Your task to perform on an android device: Open display settings Image 0: 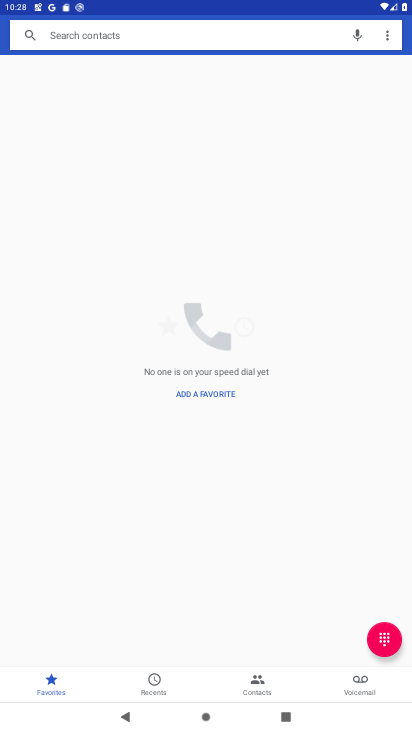
Step 0: press home button
Your task to perform on an android device: Open display settings Image 1: 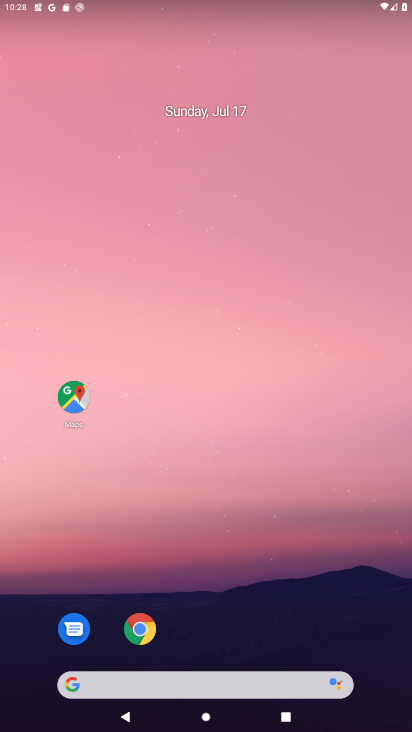
Step 1: drag from (205, 689) to (319, 371)
Your task to perform on an android device: Open display settings Image 2: 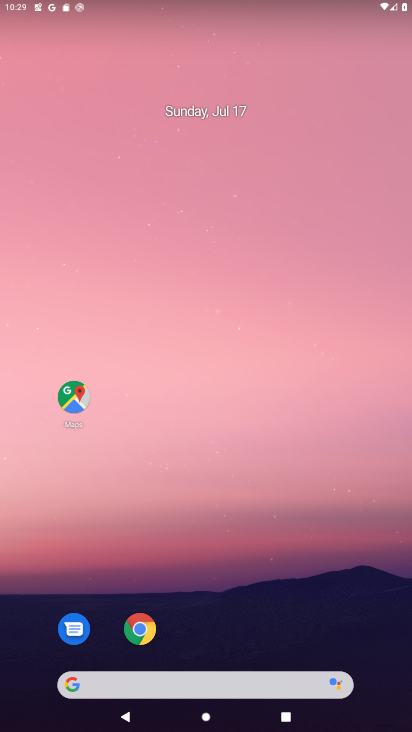
Step 2: drag from (218, 687) to (280, 293)
Your task to perform on an android device: Open display settings Image 3: 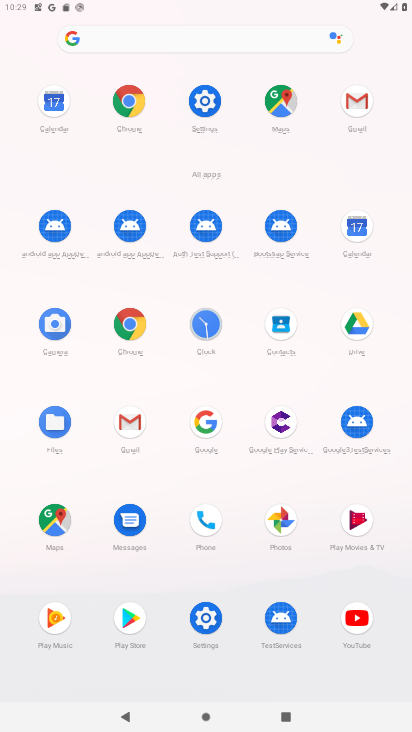
Step 3: click (205, 100)
Your task to perform on an android device: Open display settings Image 4: 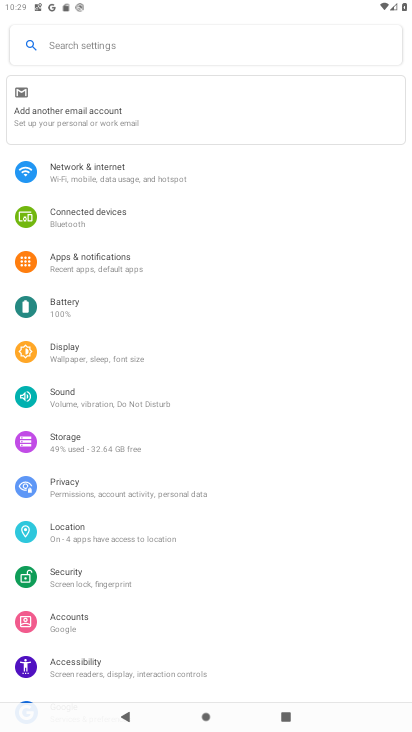
Step 4: click (77, 352)
Your task to perform on an android device: Open display settings Image 5: 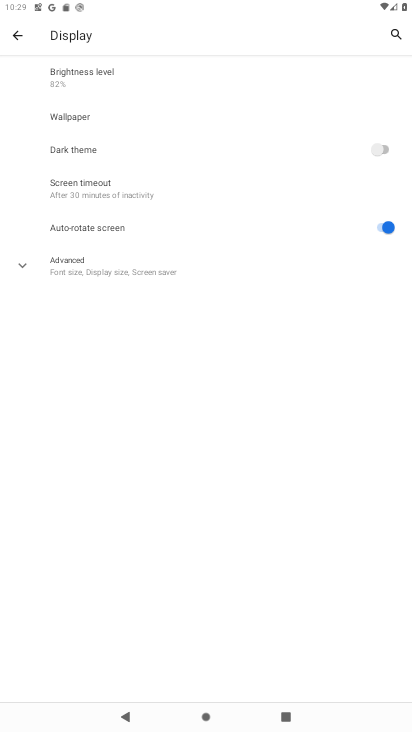
Step 5: task complete